Your task to perform on an android device: turn off smart reply in the gmail app Image 0: 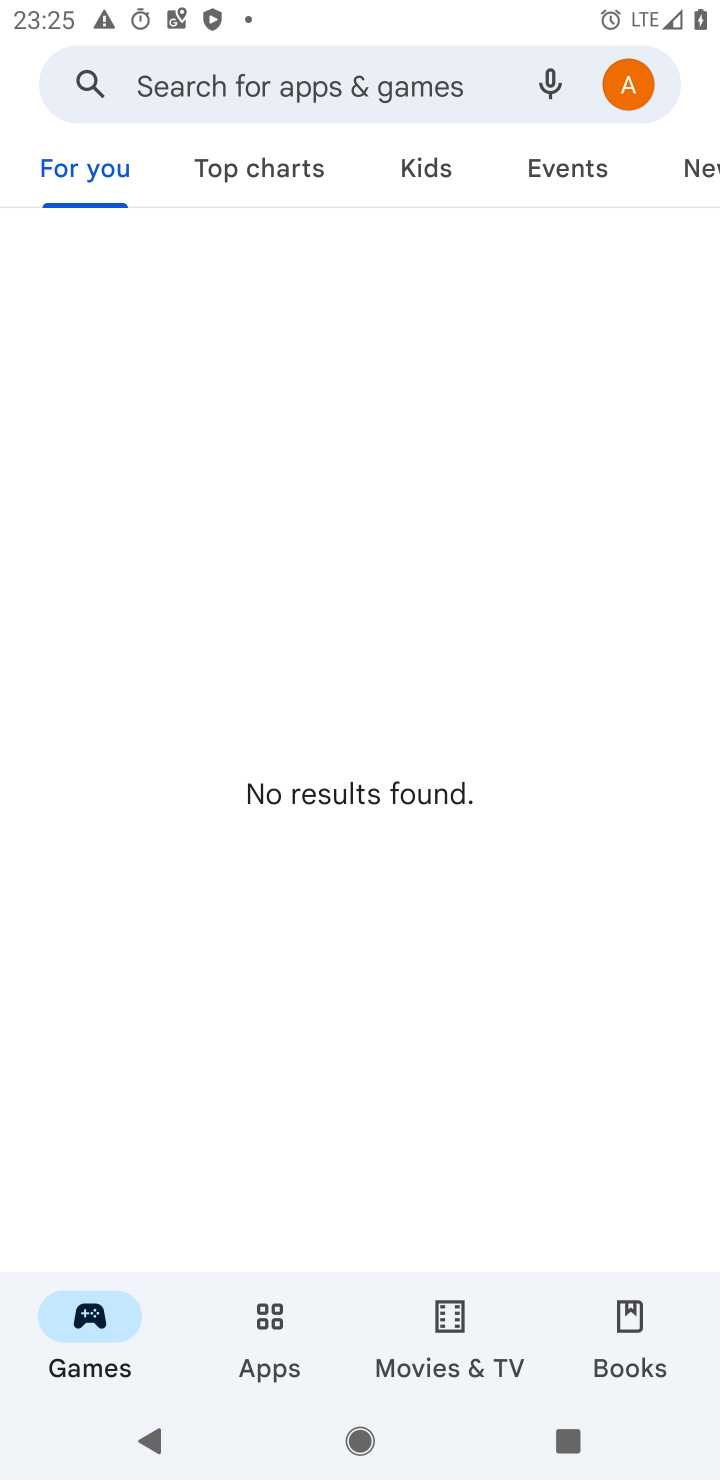
Step 0: press home button
Your task to perform on an android device: turn off smart reply in the gmail app Image 1: 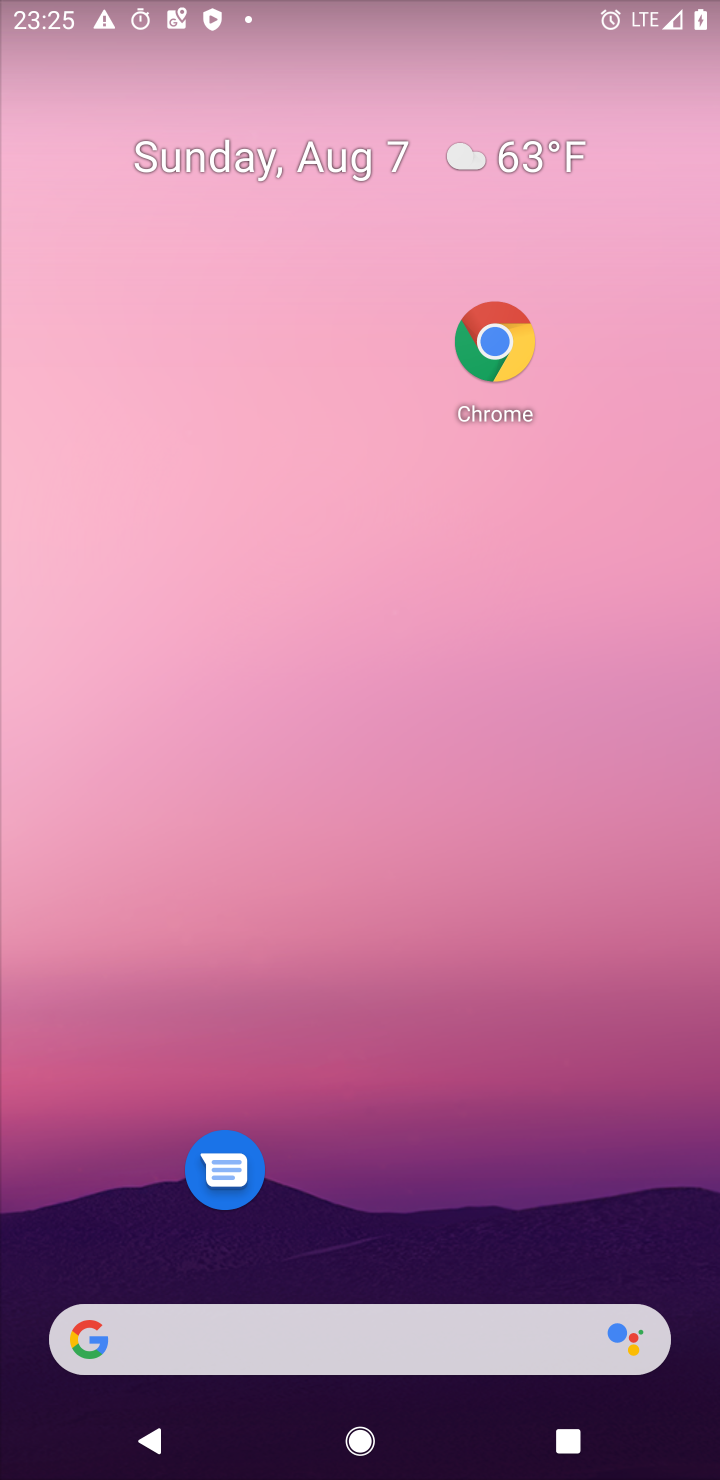
Step 1: drag from (431, 1326) to (483, 250)
Your task to perform on an android device: turn off smart reply in the gmail app Image 2: 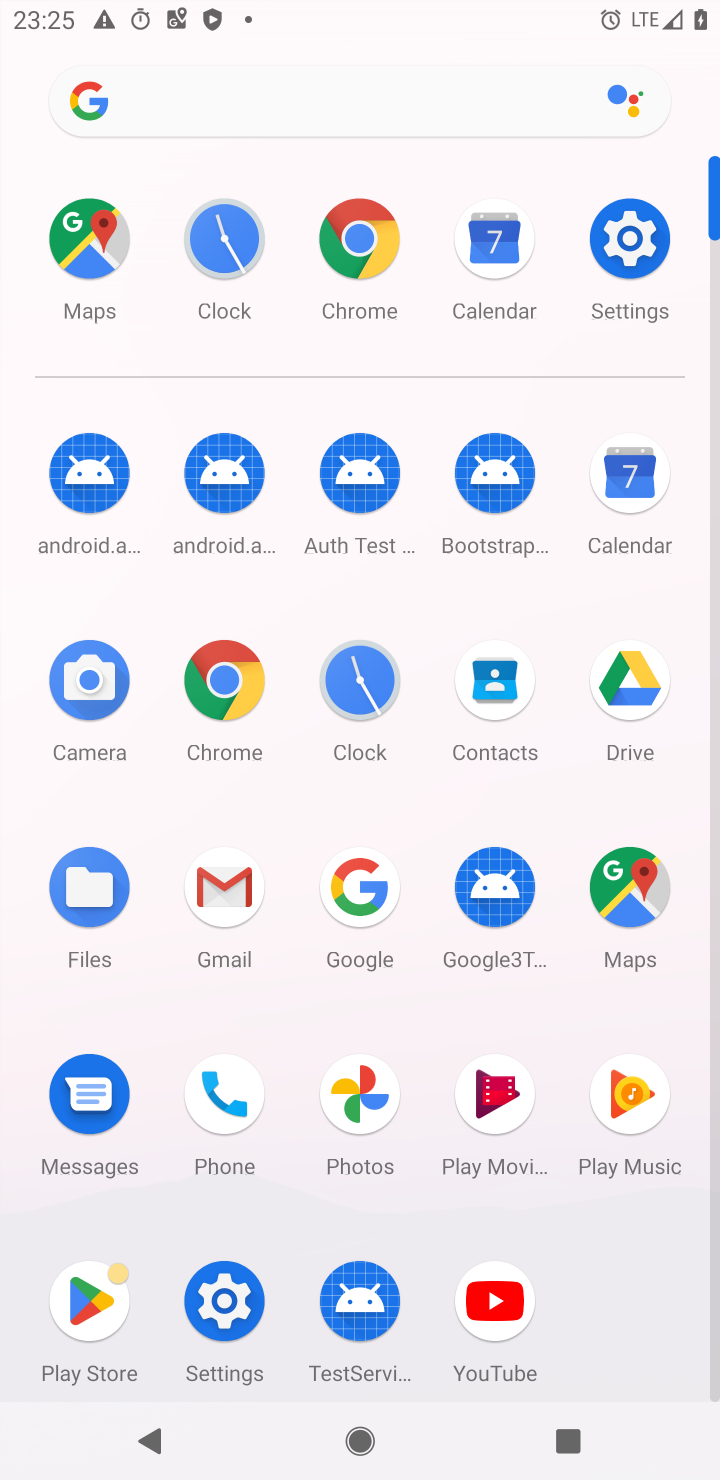
Step 2: click (225, 885)
Your task to perform on an android device: turn off smart reply in the gmail app Image 3: 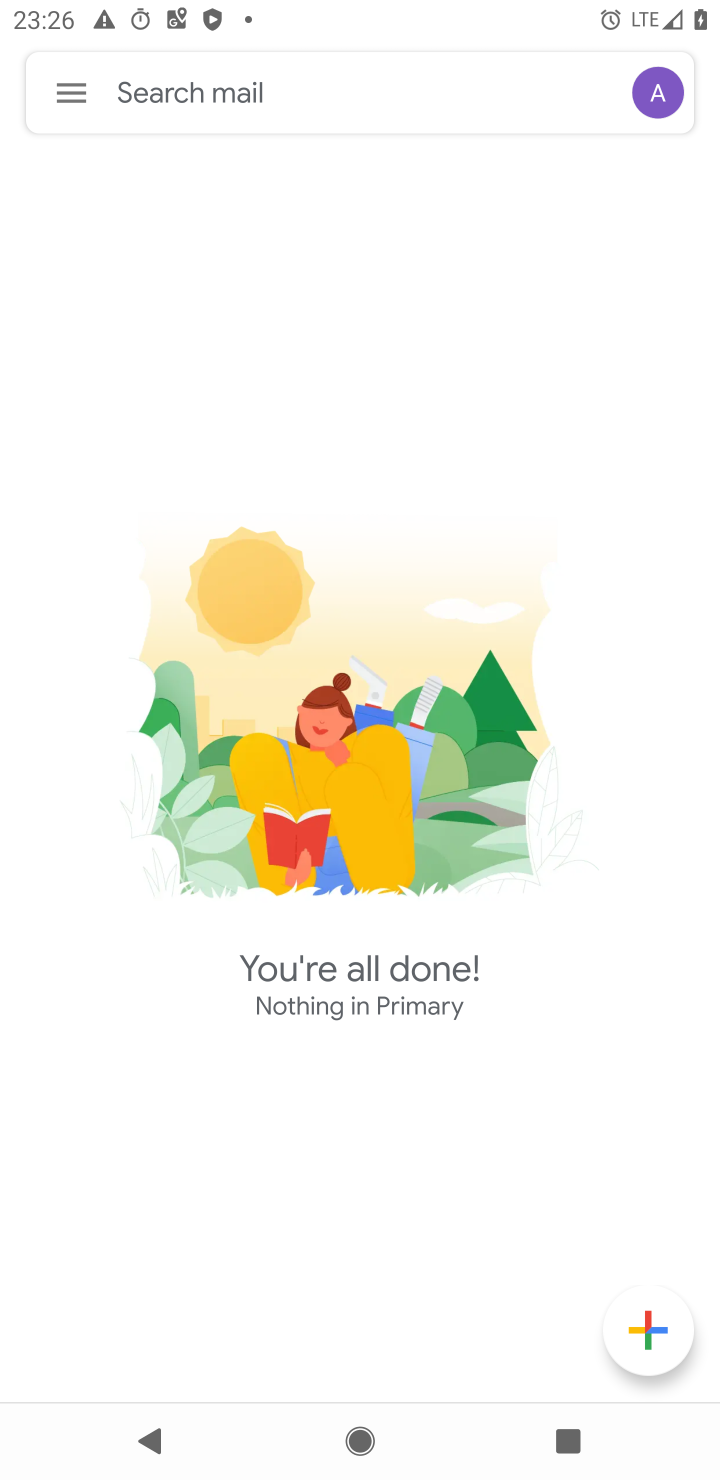
Step 3: click (82, 92)
Your task to perform on an android device: turn off smart reply in the gmail app Image 4: 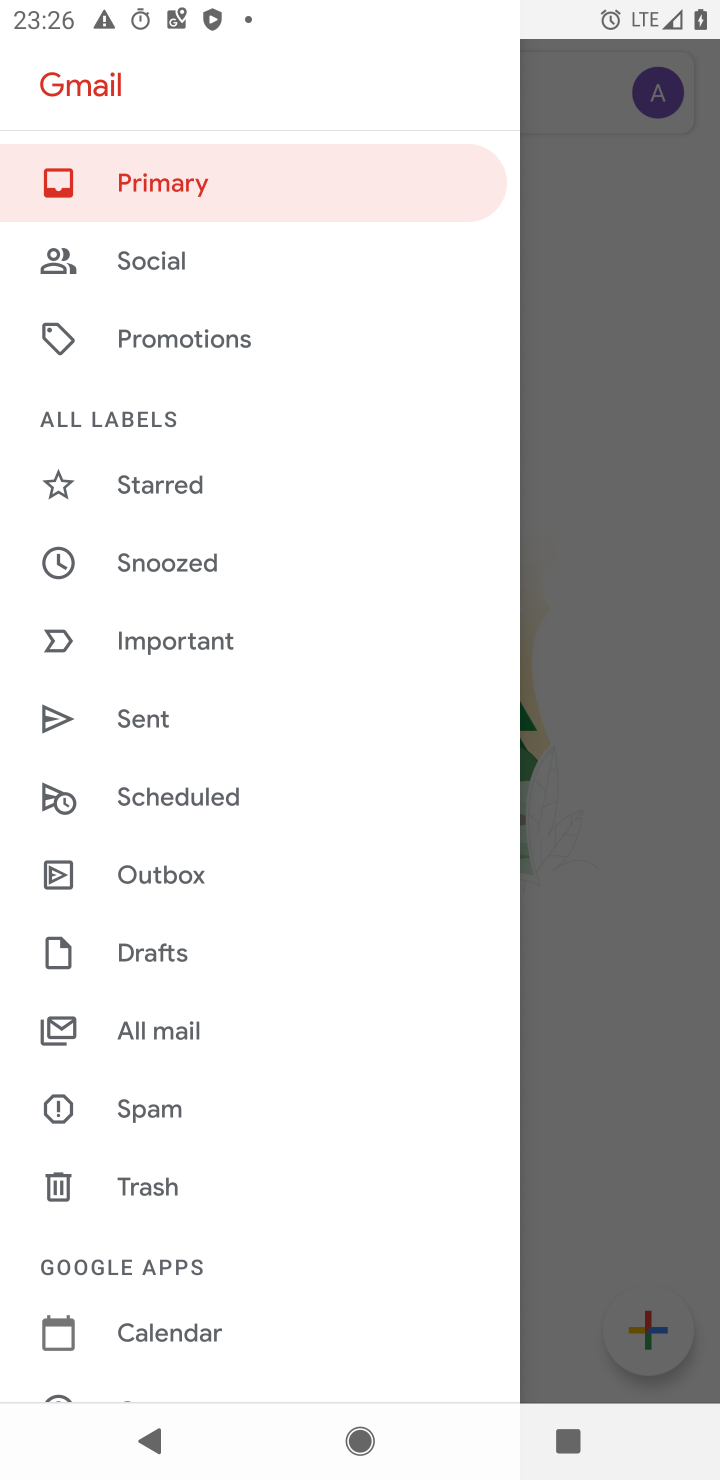
Step 4: drag from (395, 1305) to (266, 222)
Your task to perform on an android device: turn off smart reply in the gmail app Image 5: 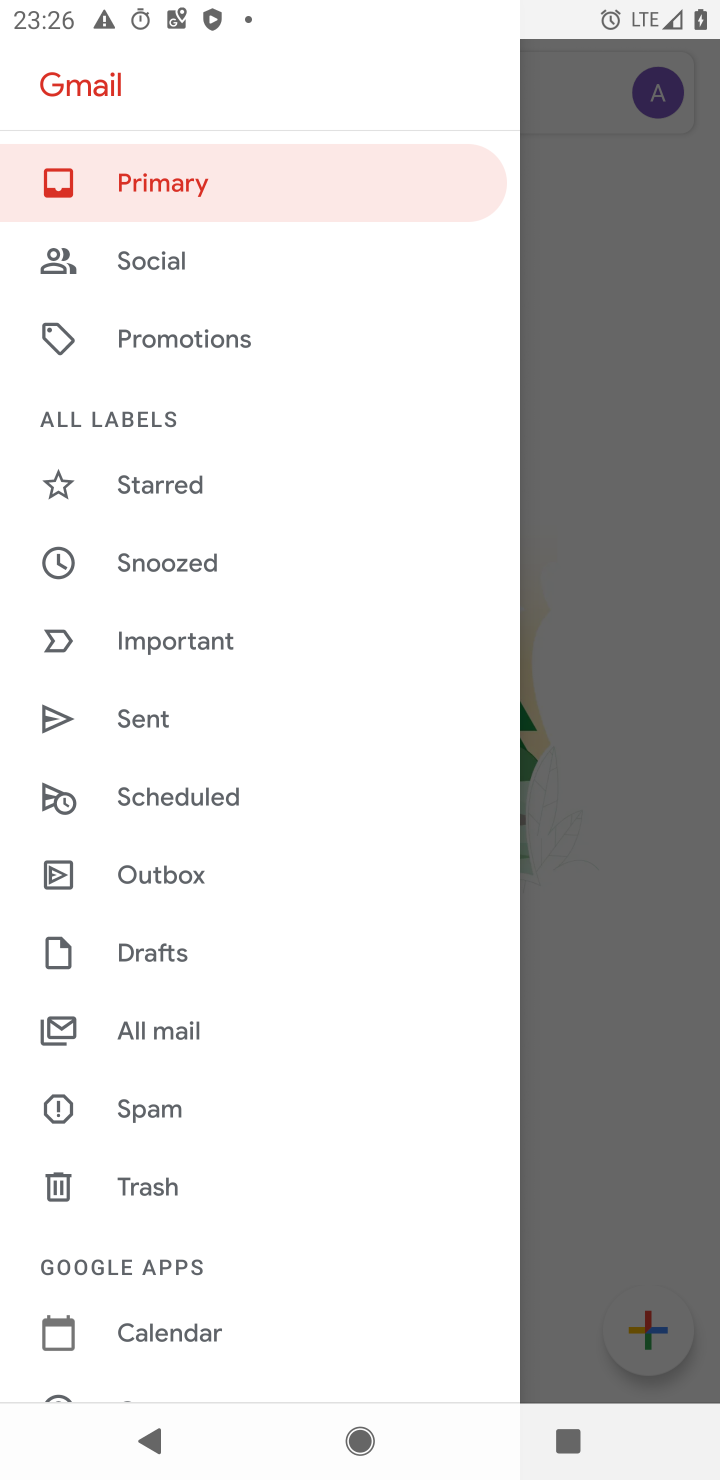
Step 5: drag from (402, 1274) to (351, 509)
Your task to perform on an android device: turn off smart reply in the gmail app Image 6: 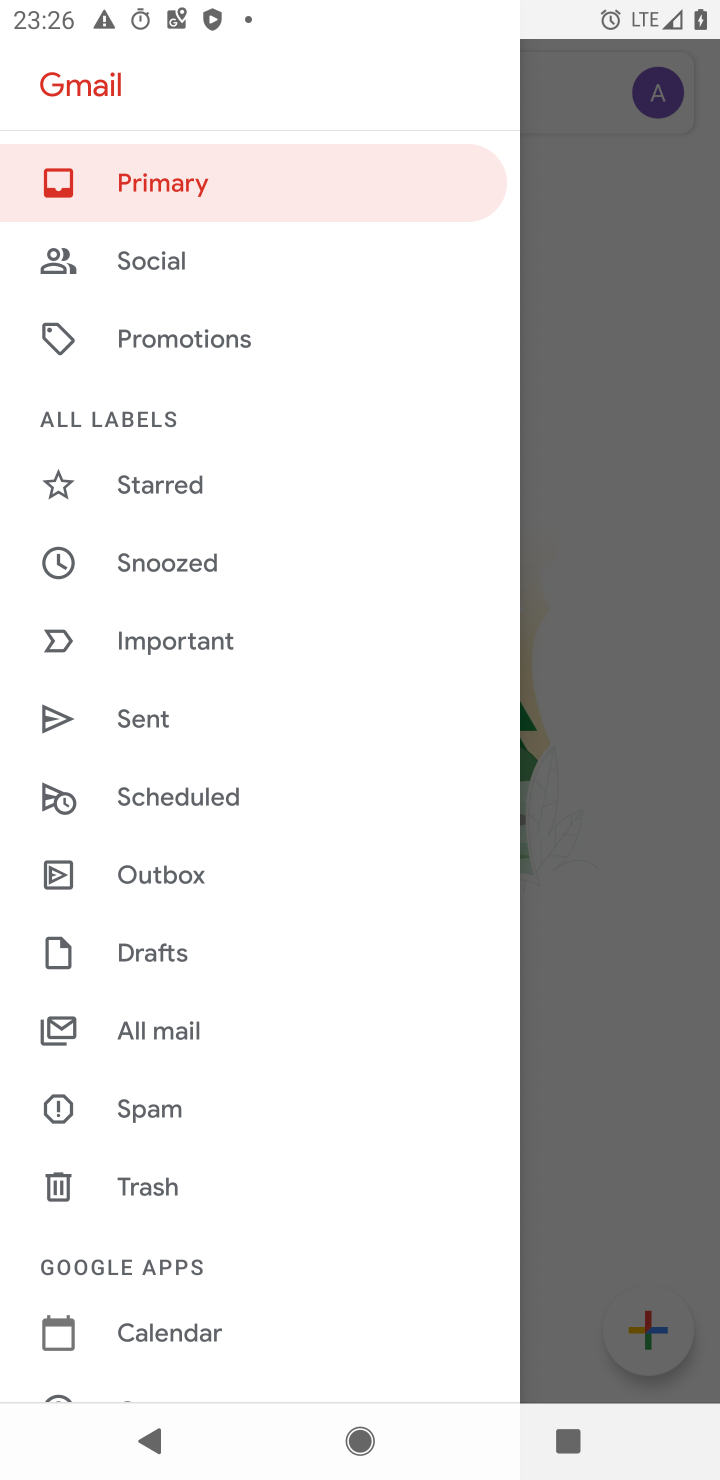
Step 6: drag from (309, 1339) to (480, 451)
Your task to perform on an android device: turn off smart reply in the gmail app Image 7: 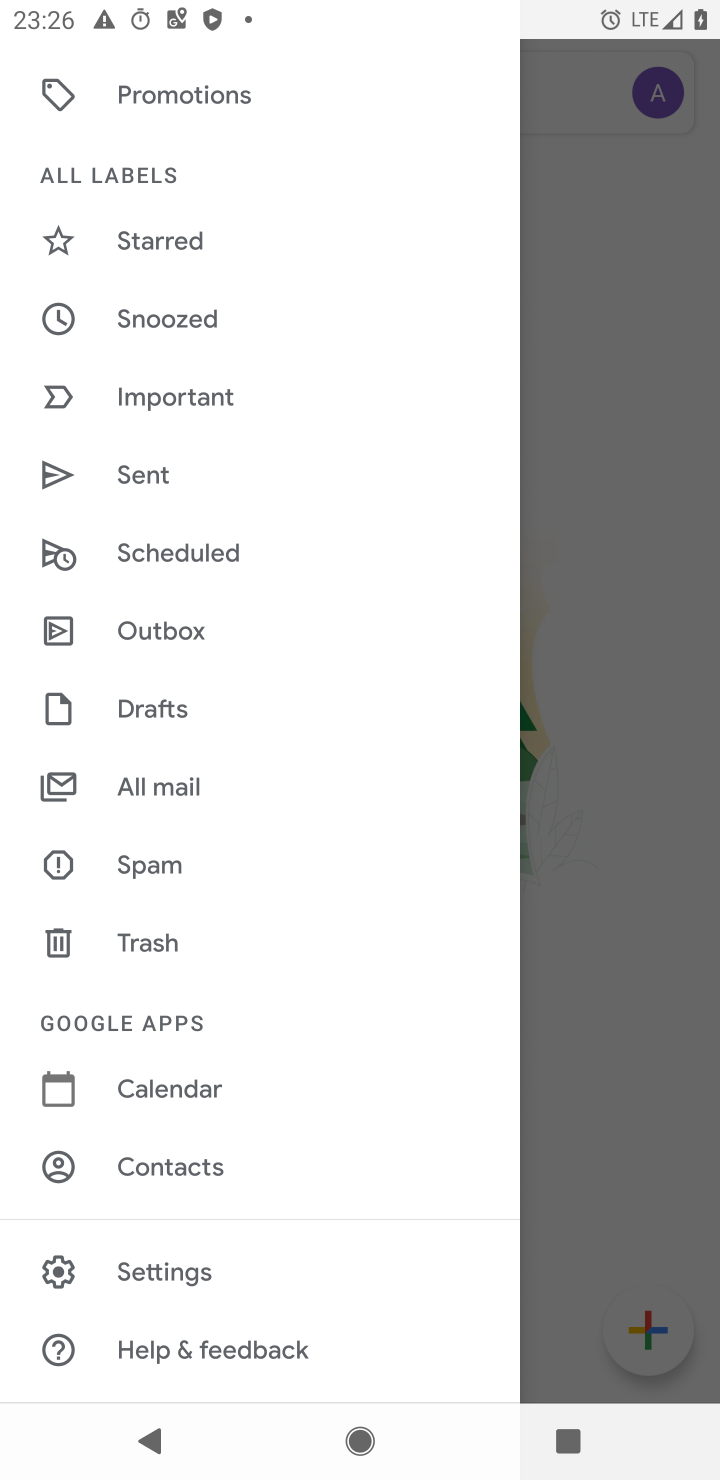
Step 7: click (159, 1256)
Your task to perform on an android device: turn off smart reply in the gmail app Image 8: 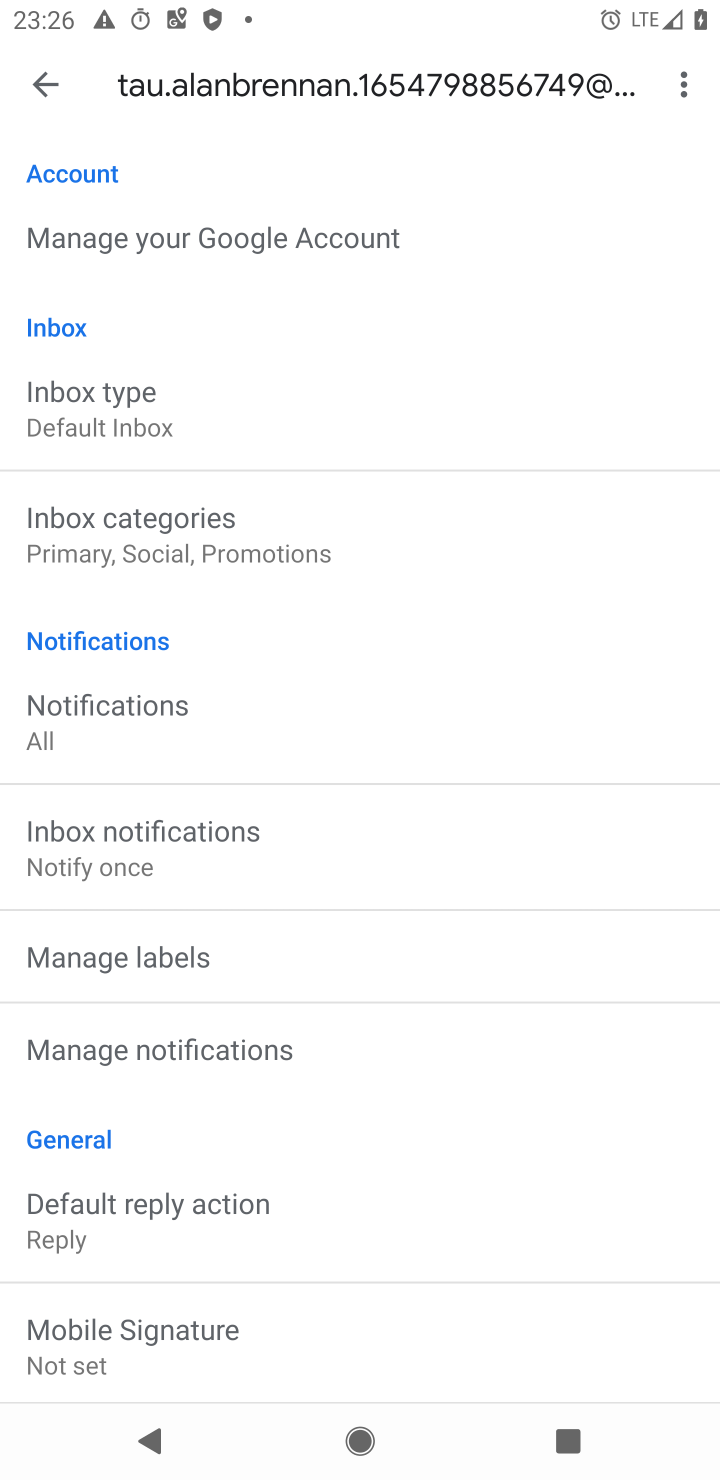
Step 8: drag from (401, 1356) to (480, 465)
Your task to perform on an android device: turn off smart reply in the gmail app Image 9: 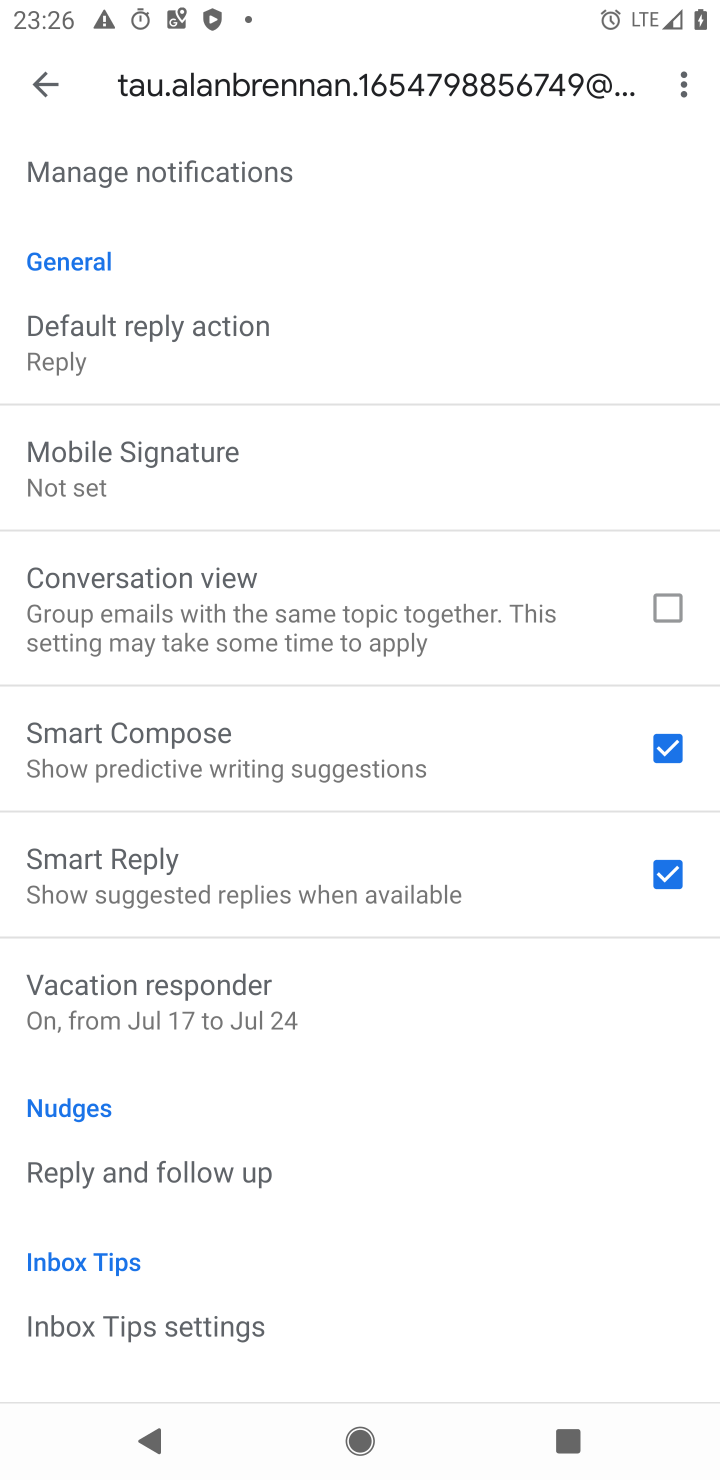
Step 9: click (393, 867)
Your task to perform on an android device: turn off smart reply in the gmail app Image 10: 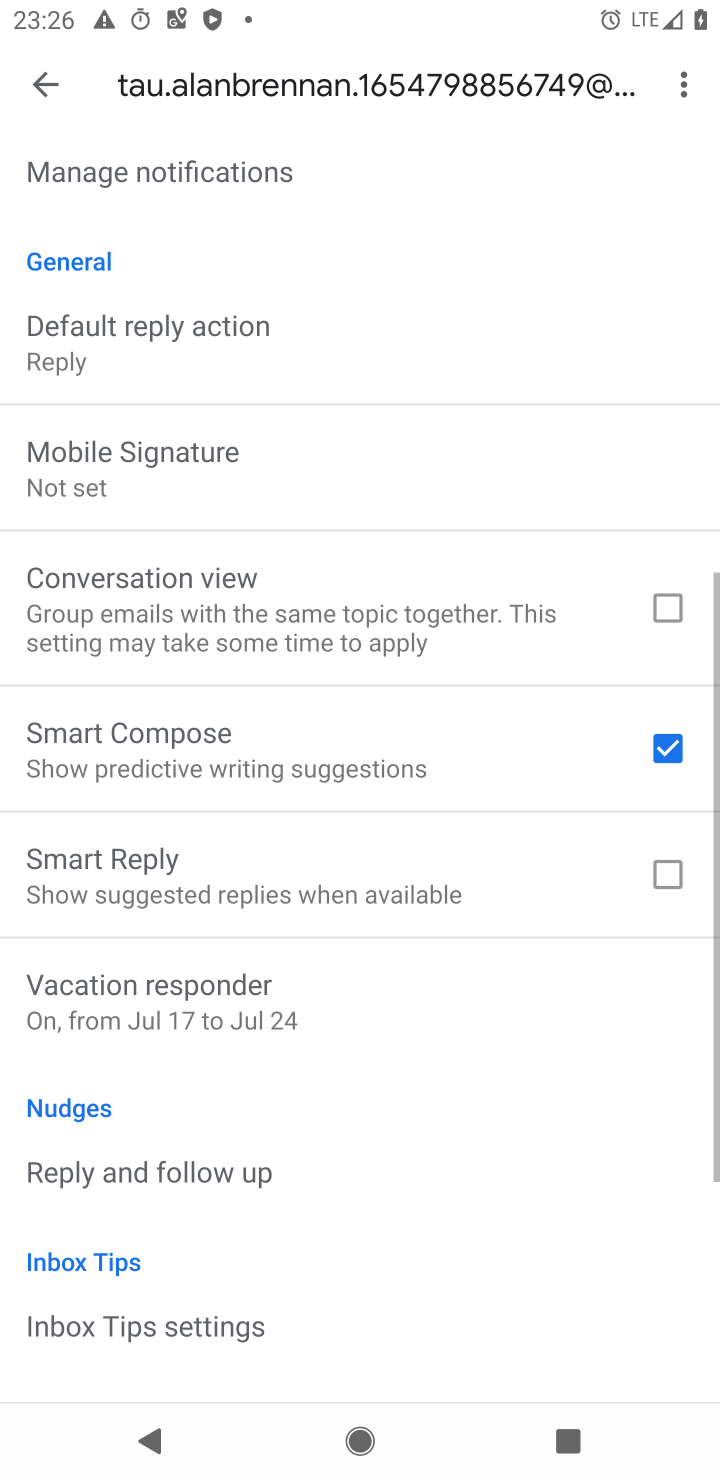
Step 10: task complete